Your task to perform on an android device: Go to settings Image 0: 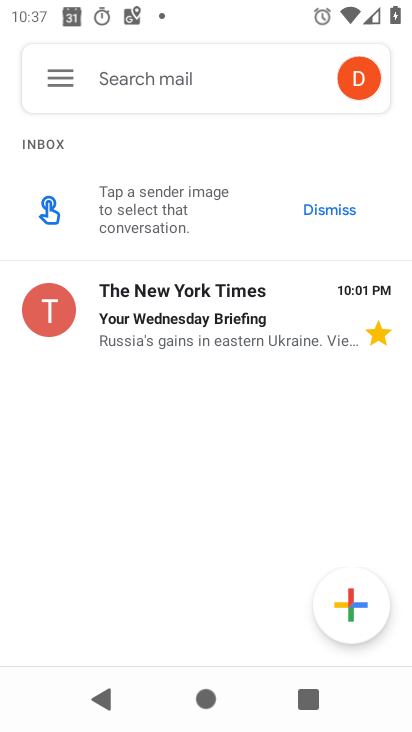
Step 0: press home button
Your task to perform on an android device: Go to settings Image 1: 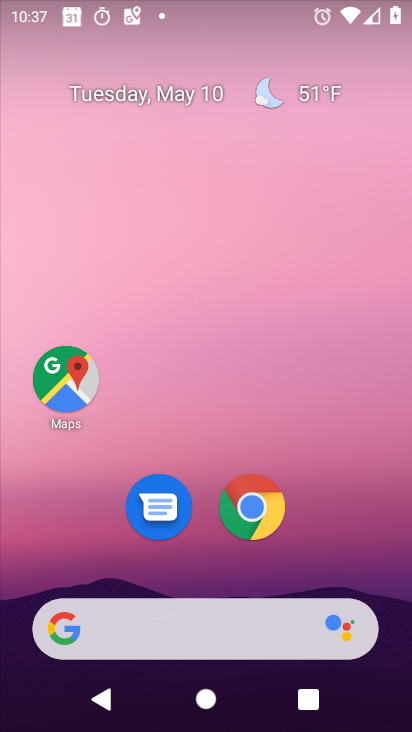
Step 1: drag from (186, 558) to (240, 39)
Your task to perform on an android device: Go to settings Image 2: 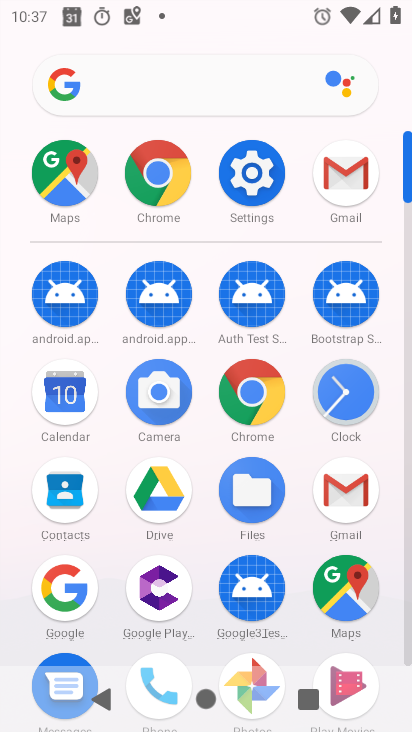
Step 2: click (251, 162)
Your task to perform on an android device: Go to settings Image 3: 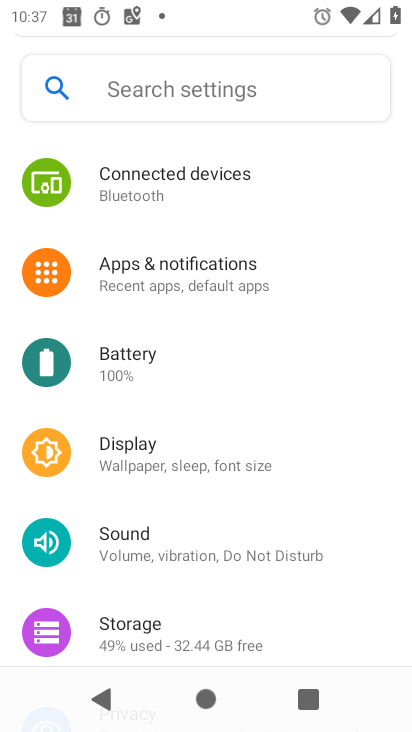
Step 3: task complete